Your task to perform on an android device: Open Amazon Image 0: 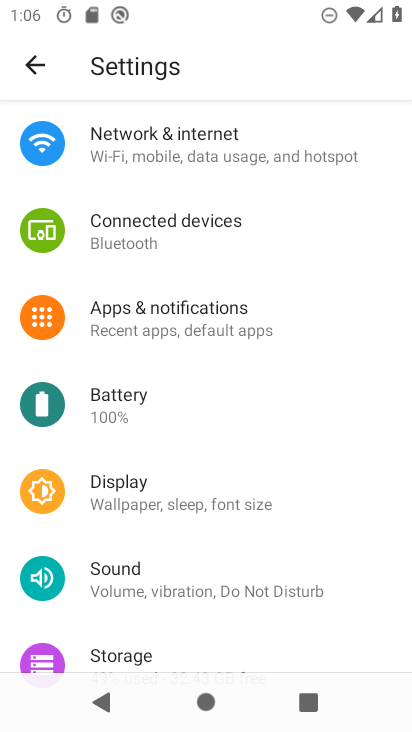
Step 0: press home button
Your task to perform on an android device: Open Amazon Image 1: 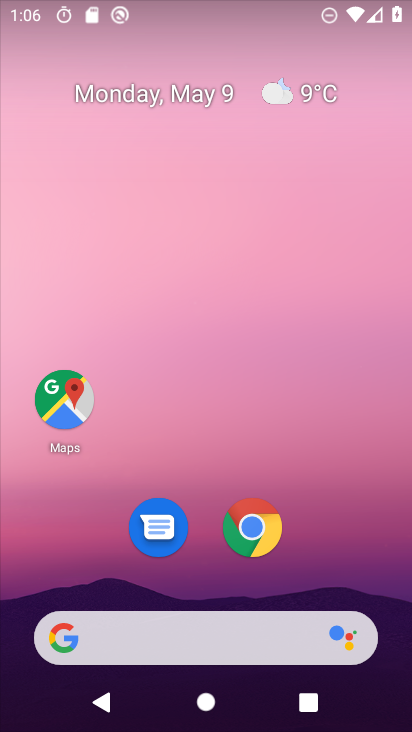
Step 1: drag from (181, 578) to (302, 13)
Your task to perform on an android device: Open Amazon Image 2: 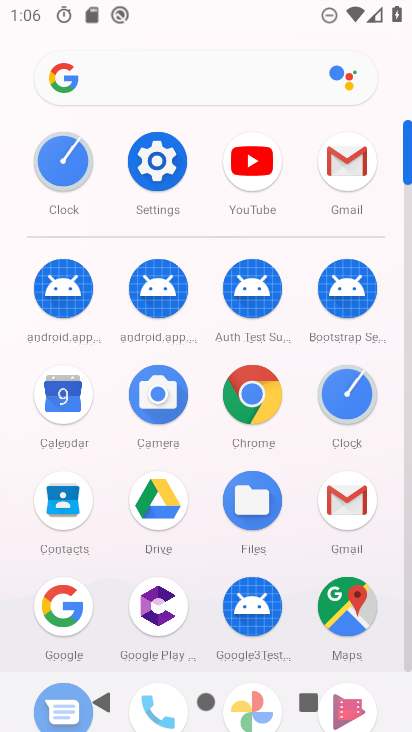
Step 2: click (245, 402)
Your task to perform on an android device: Open Amazon Image 3: 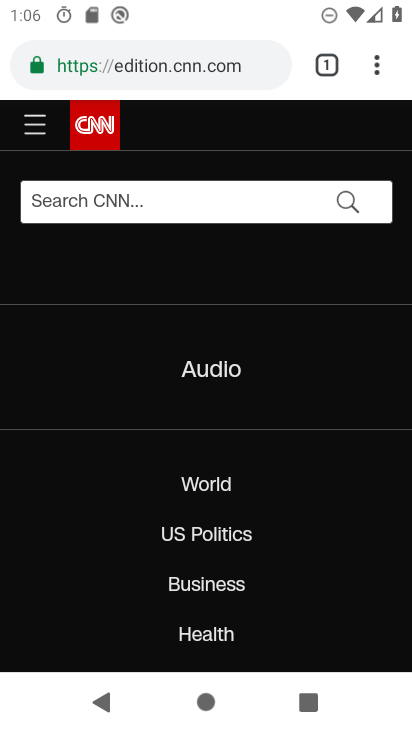
Step 3: click (330, 62)
Your task to perform on an android device: Open Amazon Image 4: 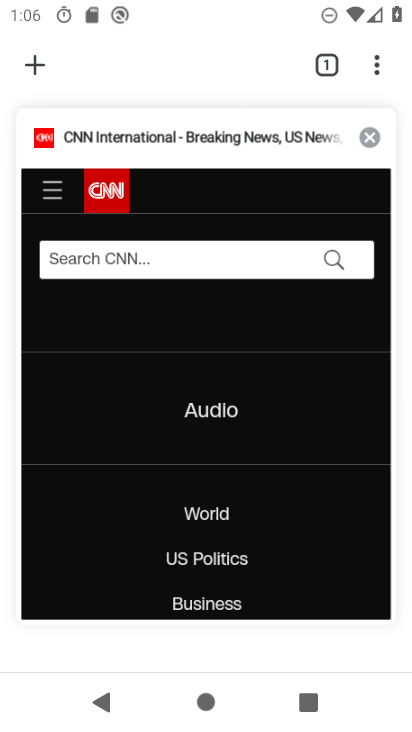
Step 4: click (30, 63)
Your task to perform on an android device: Open Amazon Image 5: 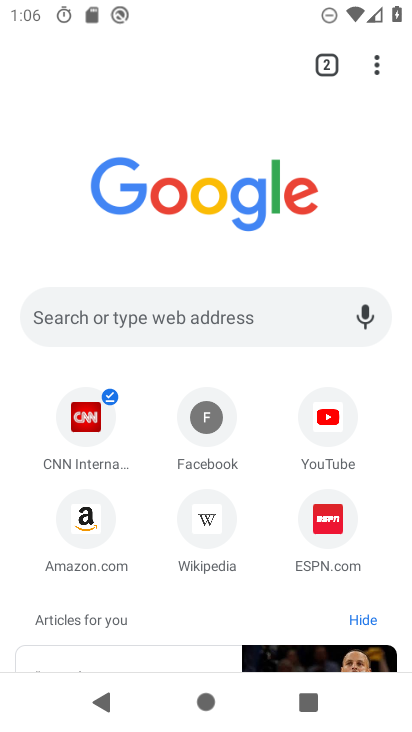
Step 5: click (81, 513)
Your task to perform on an android device: Open Amazon Image 6: 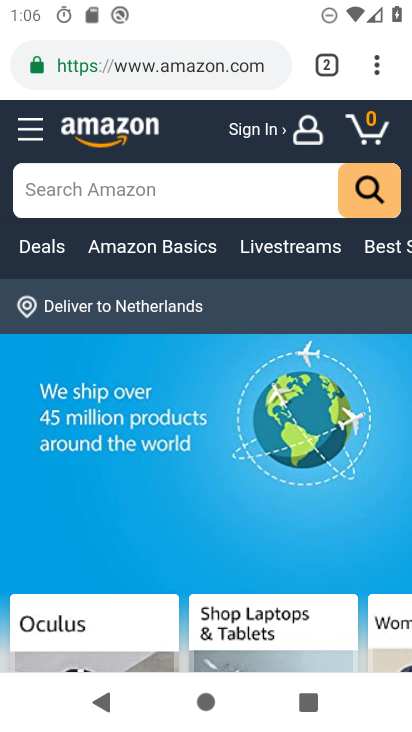
Step 6: task complete